Your task to perform on an android device: all mails in gmail Image 0: 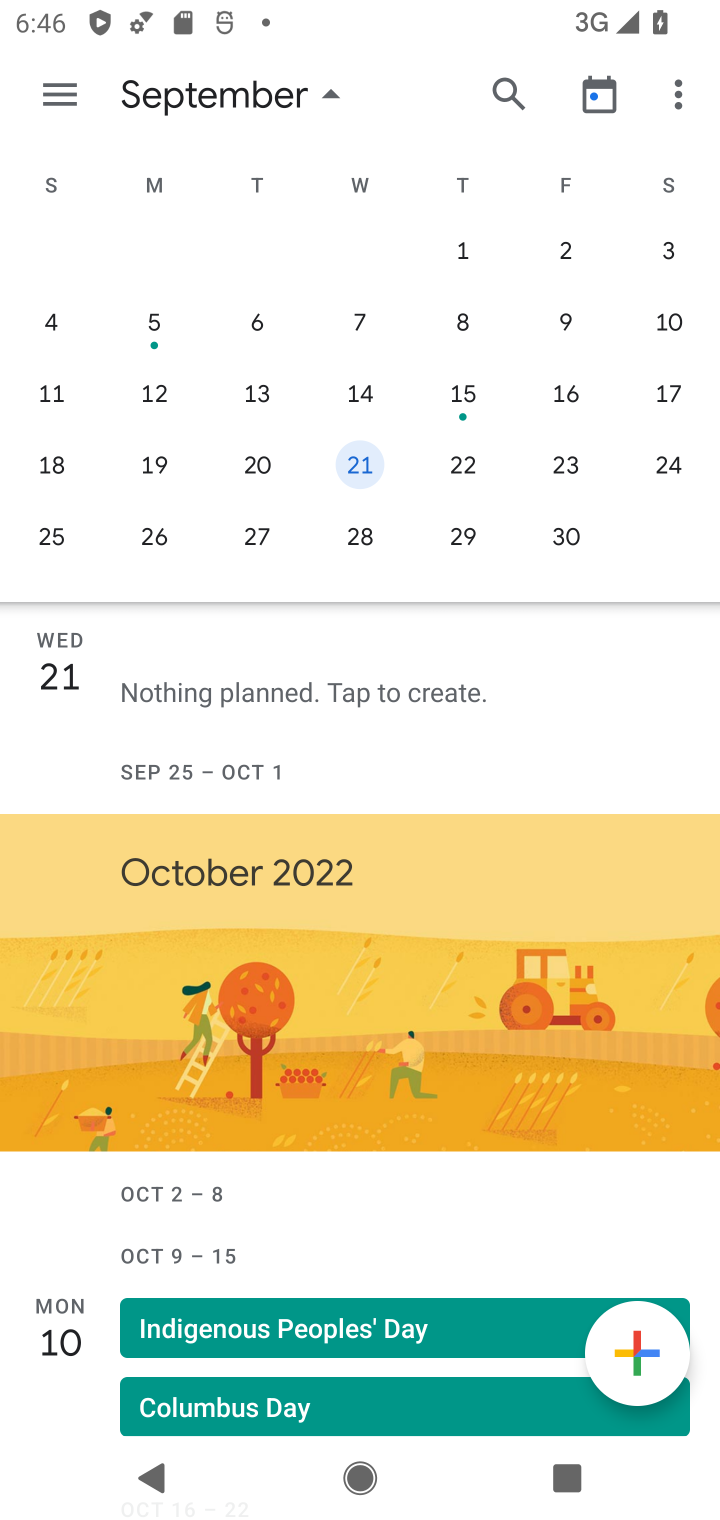
Step 0: press home button
Your task to perform on an android device: all mails in gmail Image 1: 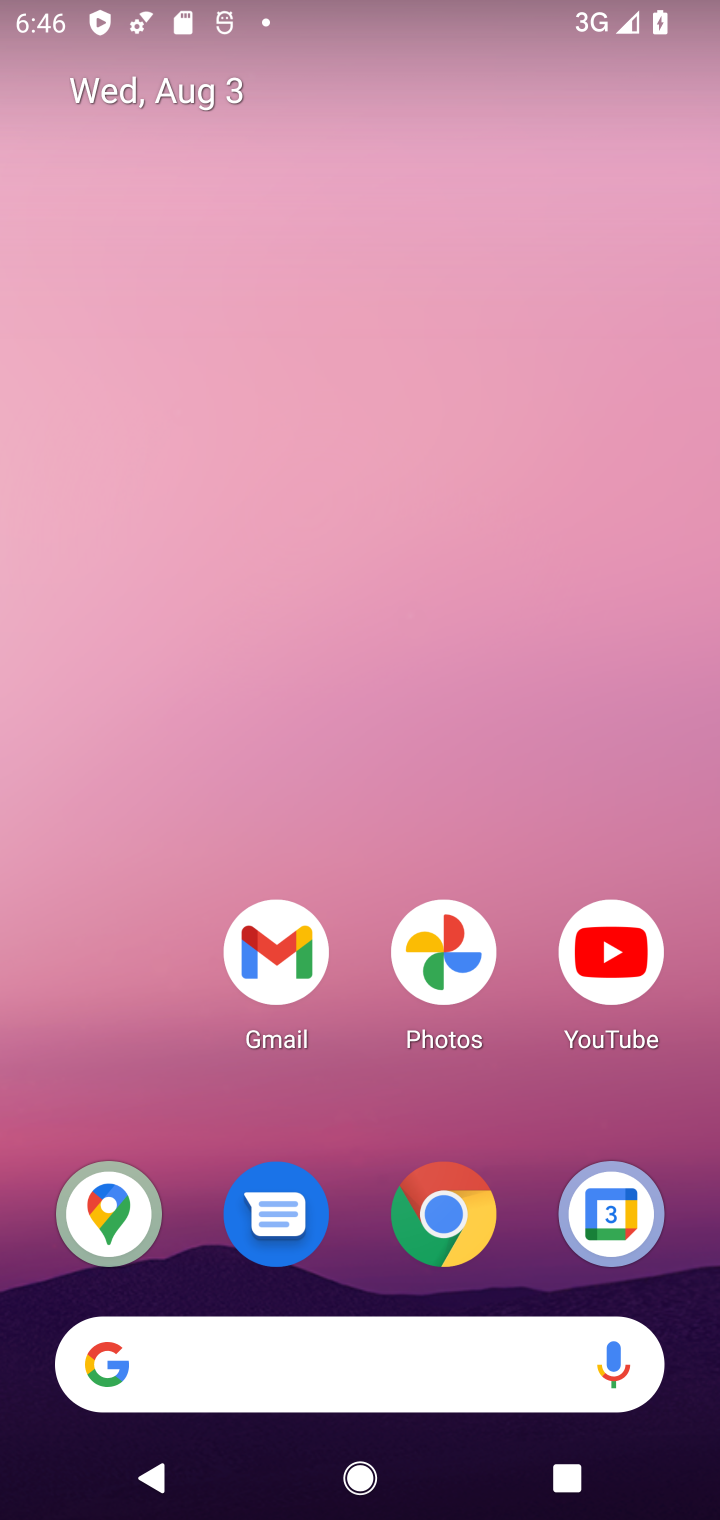
Step 1: click (288, 952)
Your task to perform on an android device: all mails in gmail Image 2: 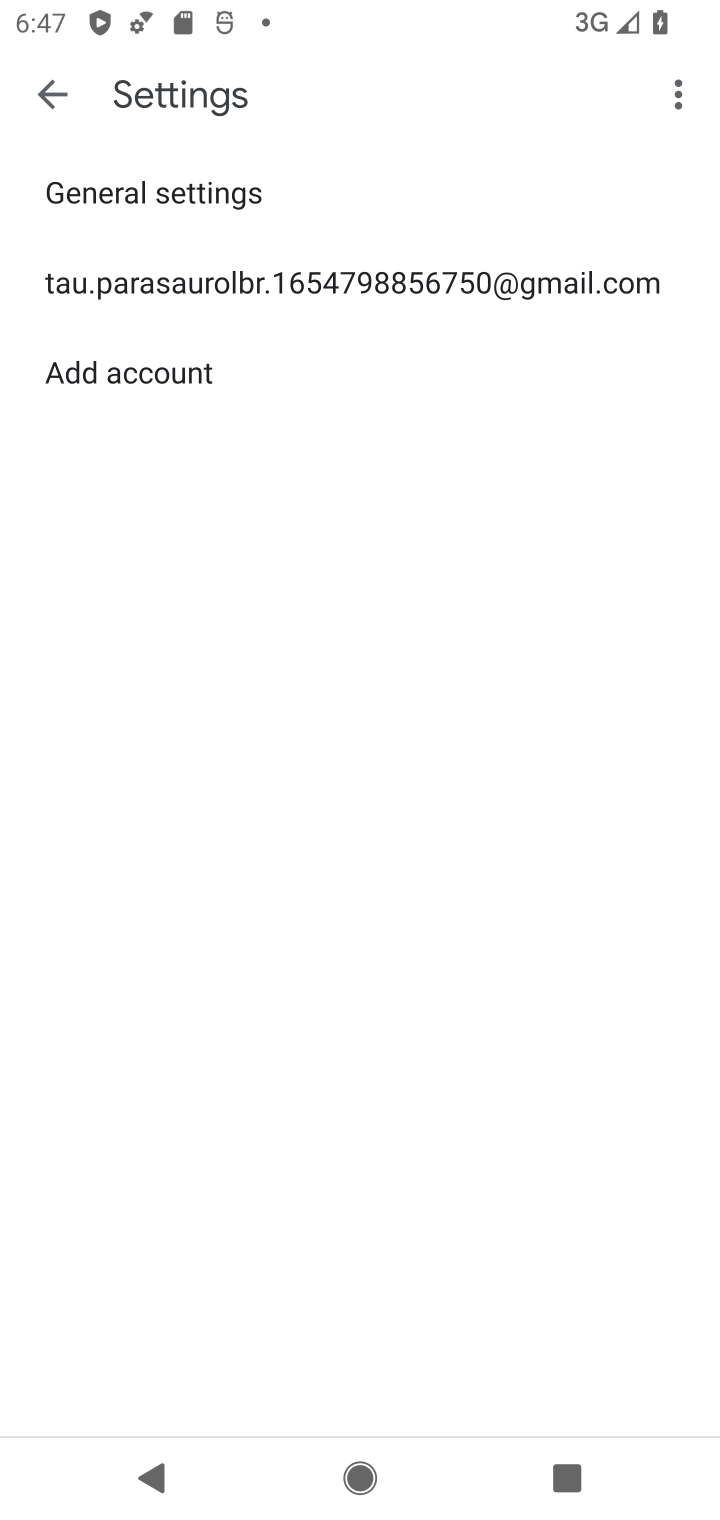
Step 2: click (51, 125)
Your task to perform on an android device: all mails in gmail Image 3: 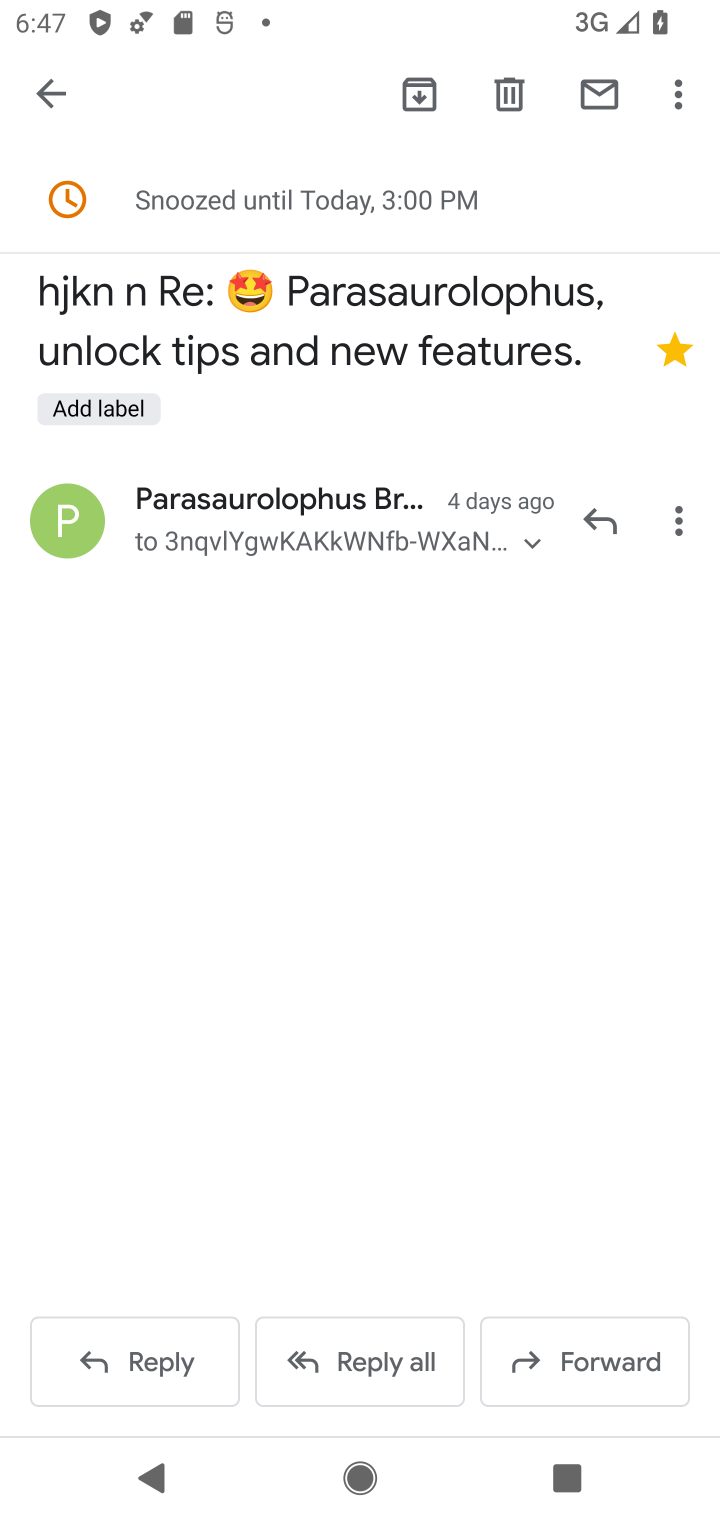
Step 3: click (30, 89)
Your task to perform on an android device: all mails in gmail Image 4: 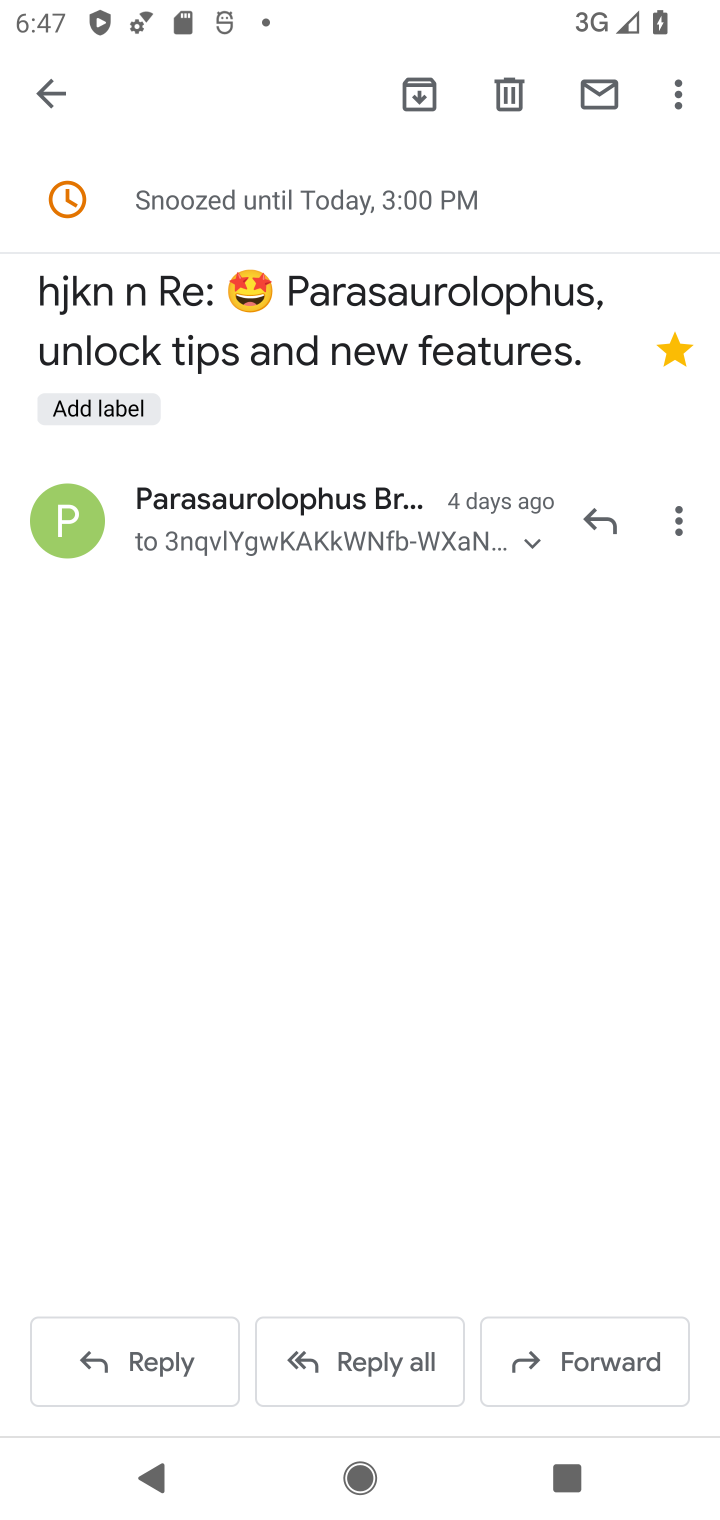
Step 4: click (56, 92)
Your task to perform on an android device: all mails in gmail Image 5: 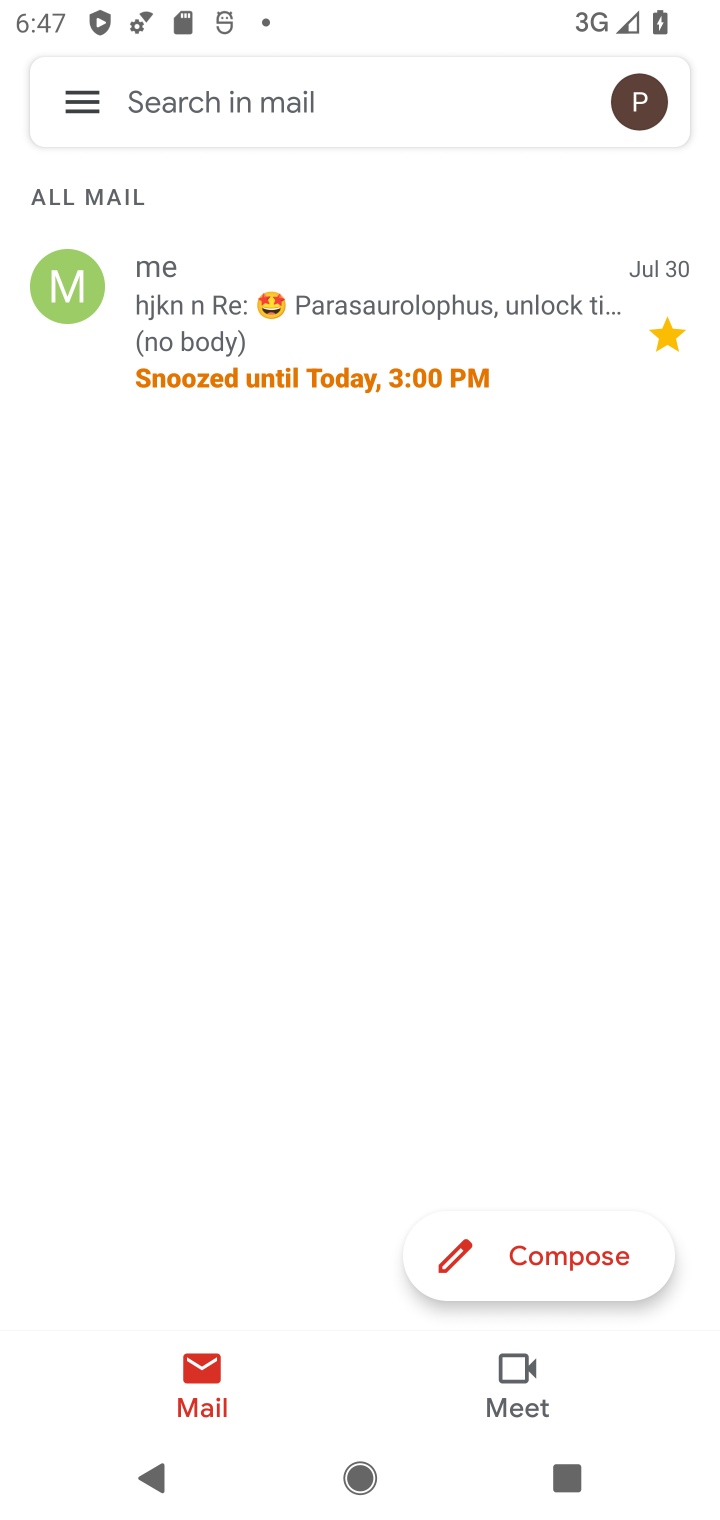
Step 5: click (56, 92)
Your task to perform on an android device: all mails in gmail Image 6: 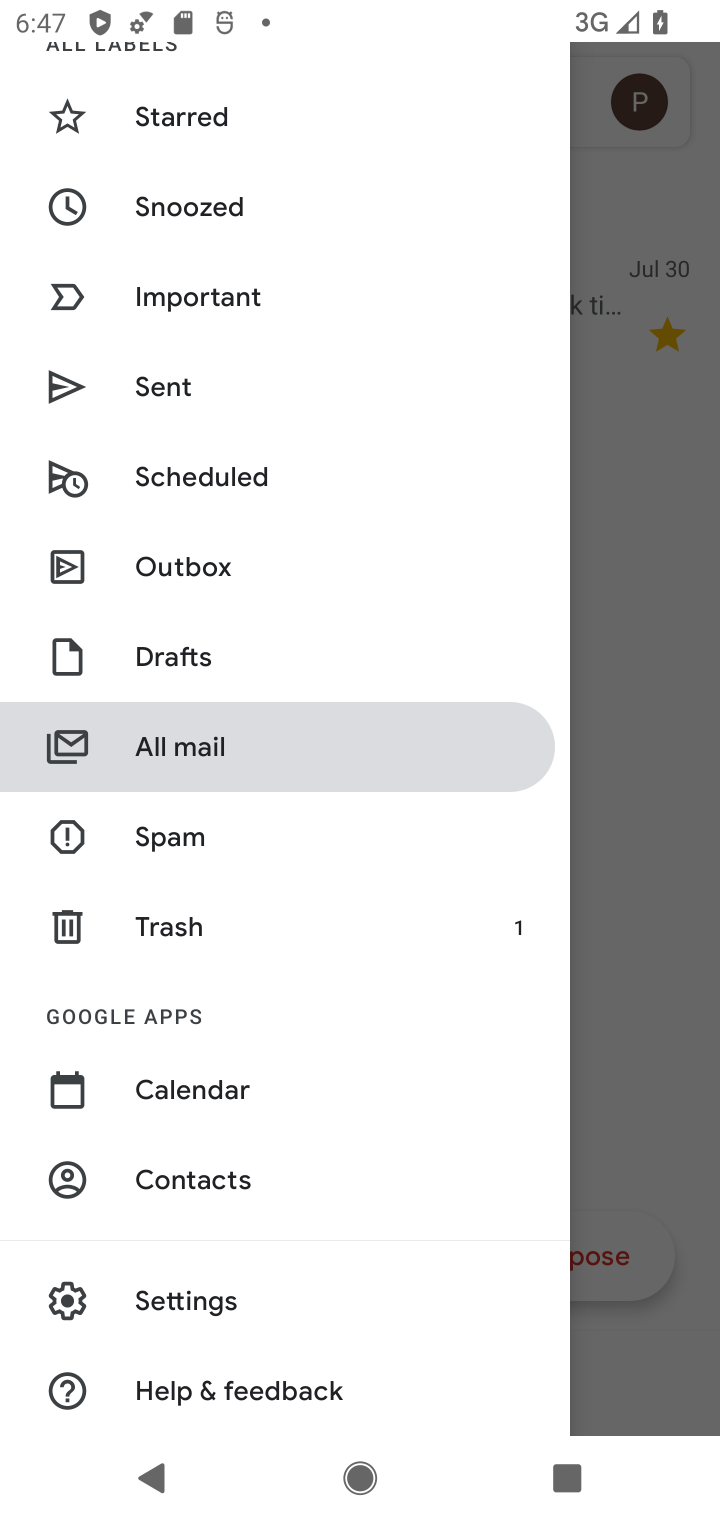
Step 6: task complete